Your task to perform on an android device: allow cookies in the chrome app Image 0: 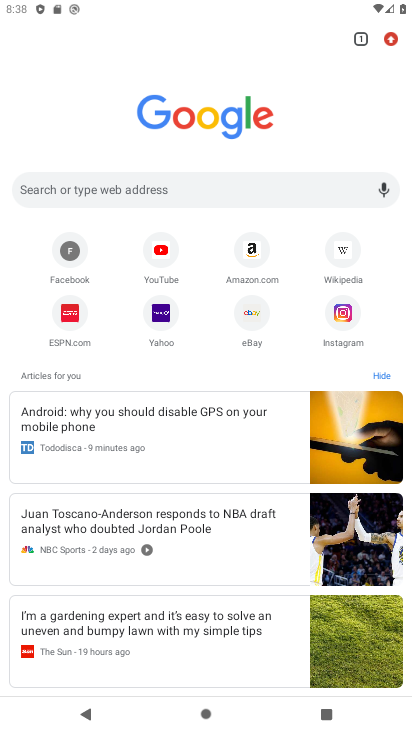
Step 0: press home button
Your task to perform on an android device: allow cookies in the chrome app Image 1: 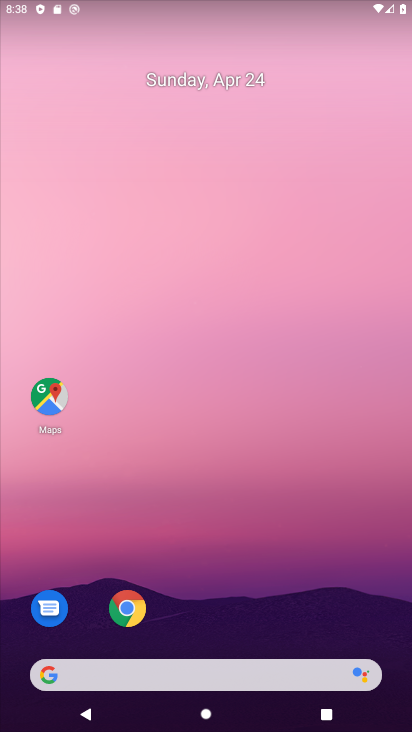
Step 1: click (131, 593)
Your task to perform on an android device: allow cookies in the chrome app Image 2: 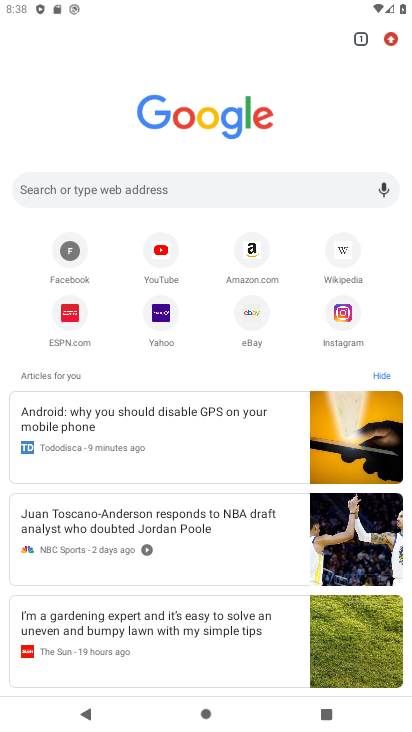
Step 2: drag from (387, 38) to (268, 362)
Your task to perform on an android device: allow cookies in the chrome app Image 3: 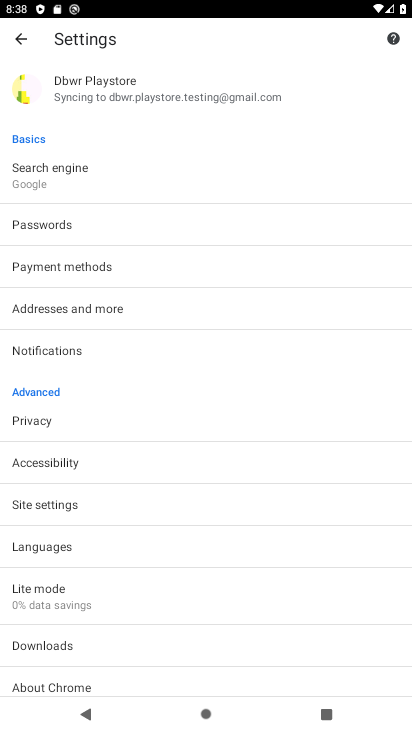
Step 3: click (80, 501)
Your task to perform on an android device: allow cookies in the chrome app Image 4: 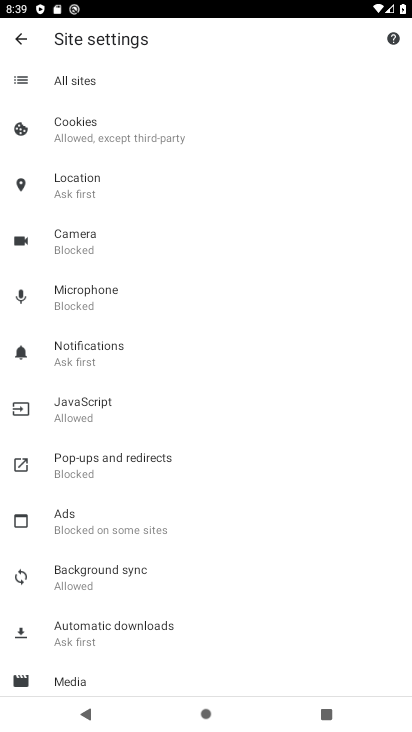
Step 4: click (136, 138)
Your task to perform on an android device: allow cookies in the chrome app Image 5: 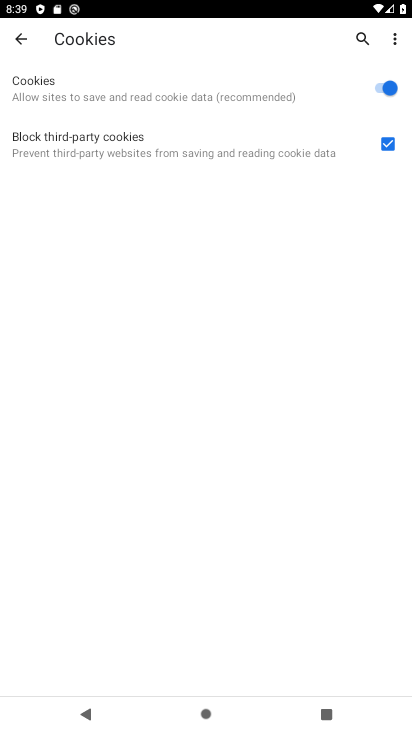
Step 5: task complete